Your task to perform on an android device: Open the Play Movies app and select the watchlist tab. Image 0: 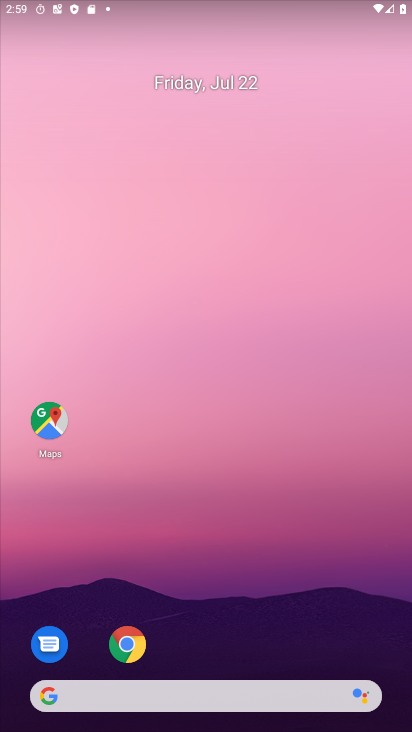
Step 0: press home button
Your task to perform on an android device: Open the Play Movies app and select the watchlist tab. Image 1: 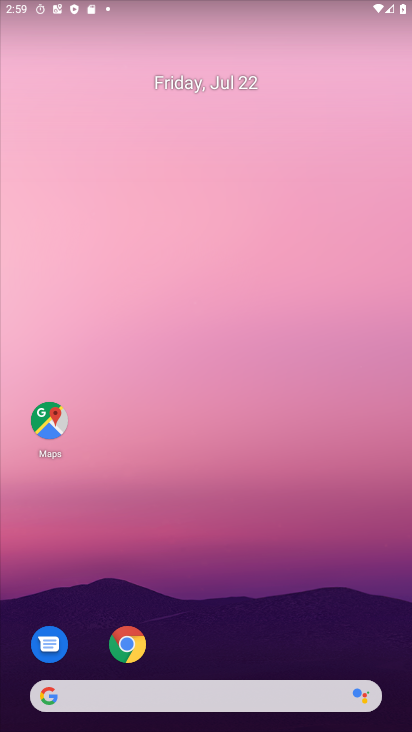
Step 1: drag from (217, 631) to (243, 182)
Your task to perform on an android device: Open the Play Movies app and select the watchlist tab. Image 2: 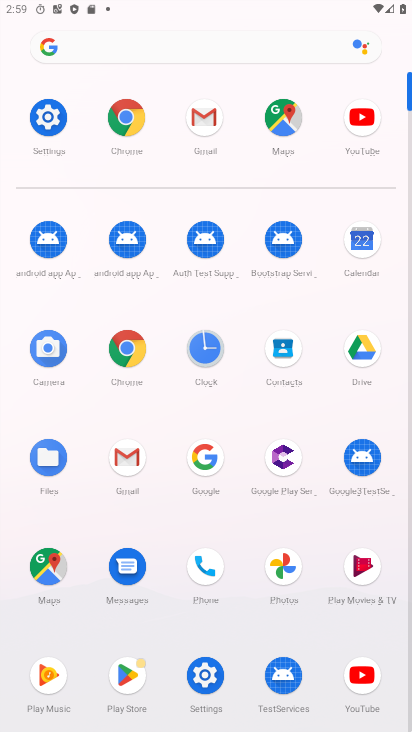
Step 2: click (359, 564)
Your task to perform on an android device: Open the Play Movies app and select the watchlist tab. Image 3: 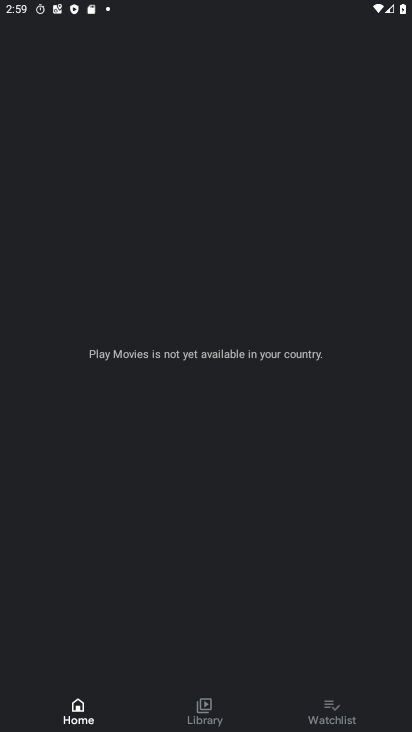
Step 3: click (328, 707)
Your task to perform on an android device: Open the Play Movies app and select the watchlist tab. Image 4: 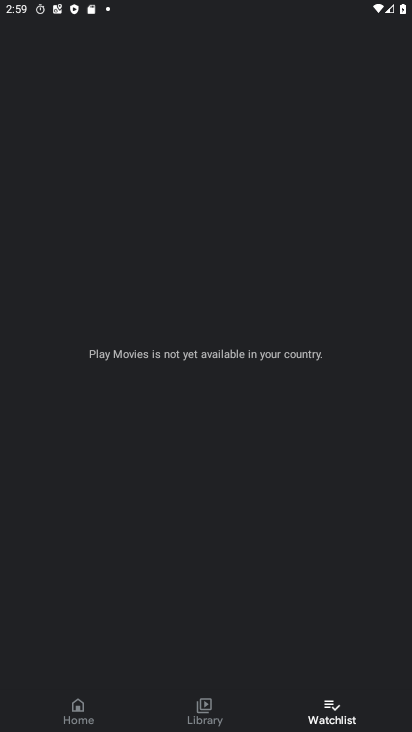
Step 4: task complete